Your task to perform on an android device: Open battery settings Image 0: 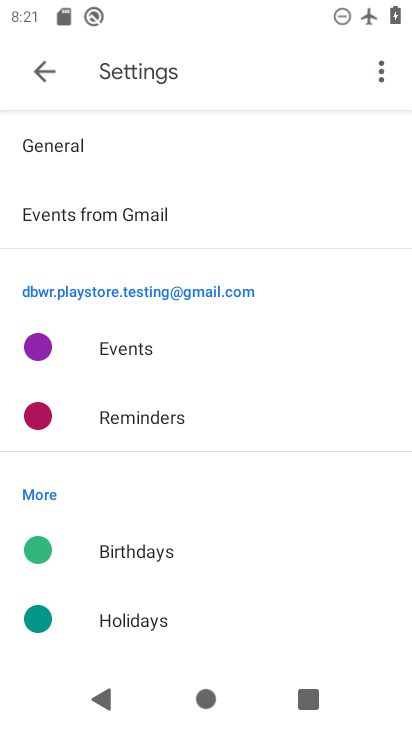
Step 0: press home button
Your task to perform on an android device: Open battery settings Image 1: 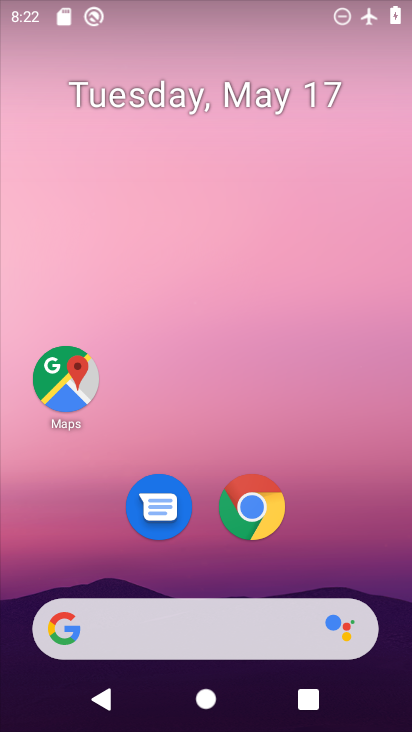
Step 1: drag from (347, 577) to (333, 31)
Your task to perform on an android device: Open battery settings Image 2: 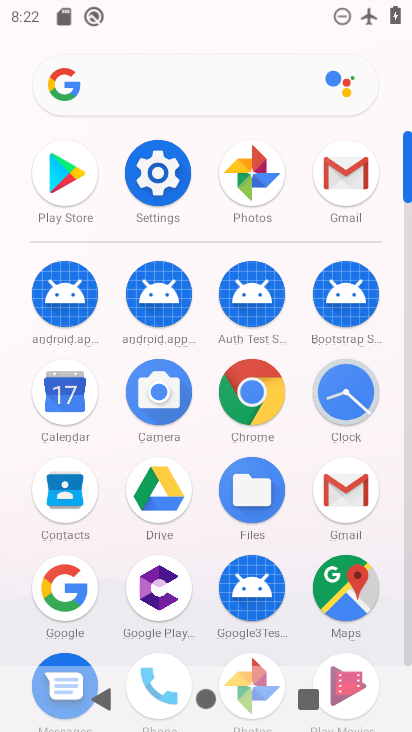
Step 2: click (153, 180)
Your task to perform on an android device: Open battery settings Image 3: 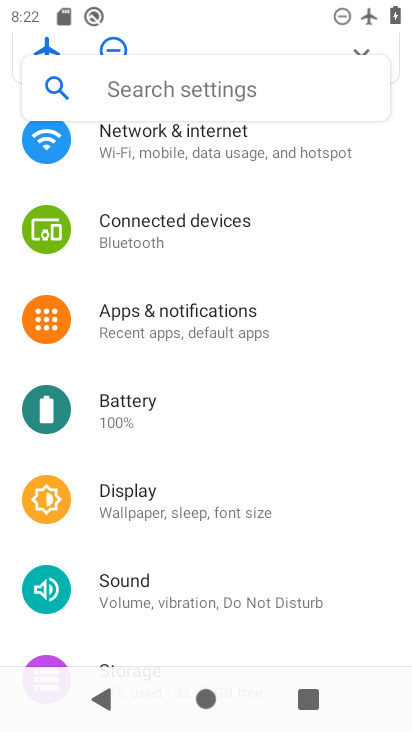
Step 3: click (116, 410)
Your task to perform on an android device: Open battery settings Image 4: 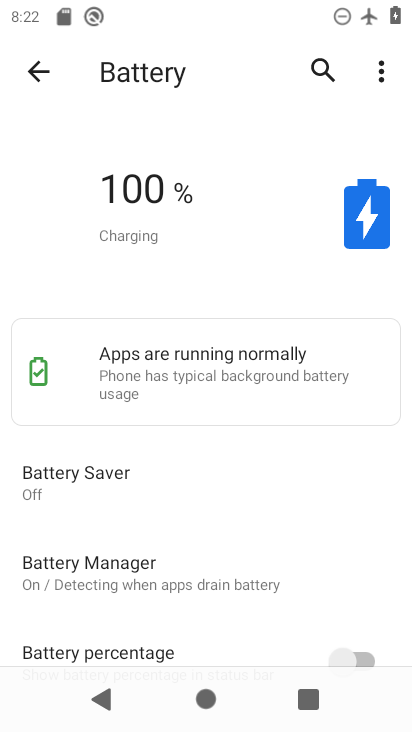
Step 4: task complete